Your task to perform on an android device: Show me productivity apps on the Play Store Image 0: 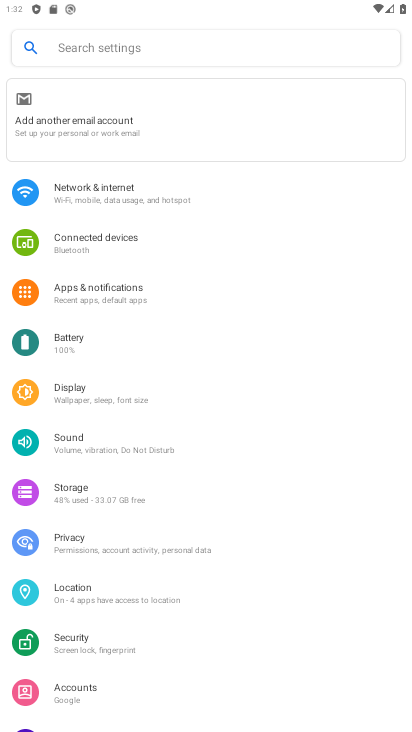
Step 0: press home button
Your task to perform on an android device: Show me productivity apps on the Play Store Image 1: 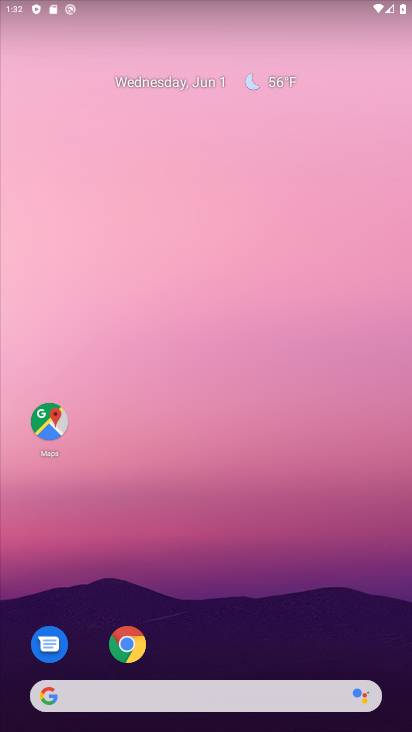
Step 1: drag from (232, 648) to (236, 309)
Your task to perform on an android device: Show me productivity apps on the Play Store Image 2: 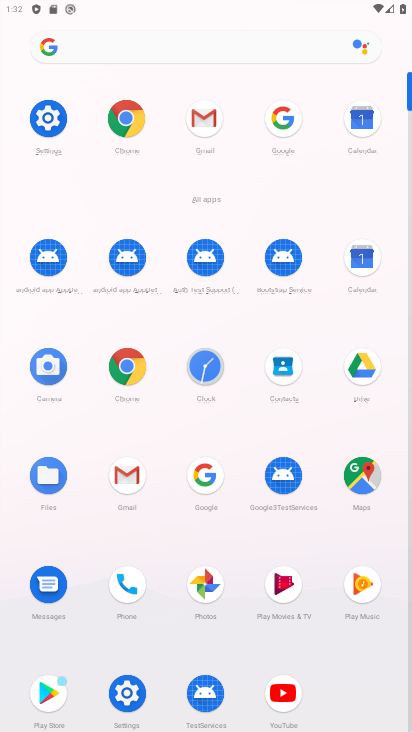
Step 2: click (58, 693)
Your task to perform on an android device: Show me productivity apps on the Play Store Image 3: 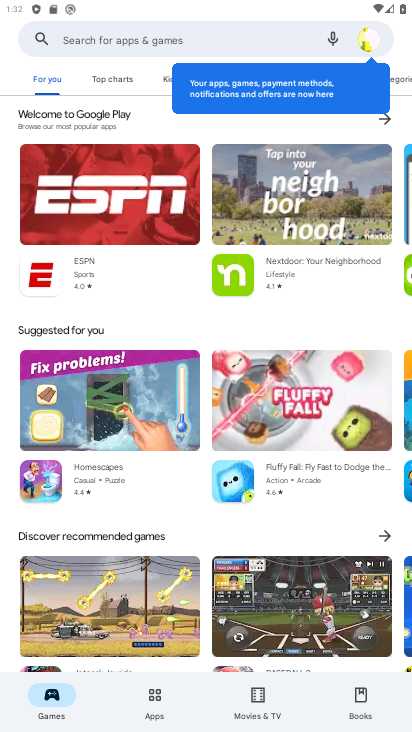
Step 3: click (156, 702)
Your task to perform on an android device: Show me productivity apps on the Play Store Image 4: 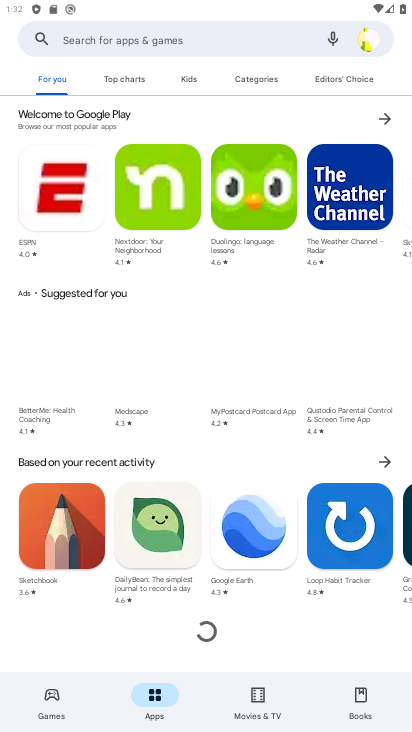
Step 4: task complete